Your task to perform on an android device: Open Wikipedia Image 0: 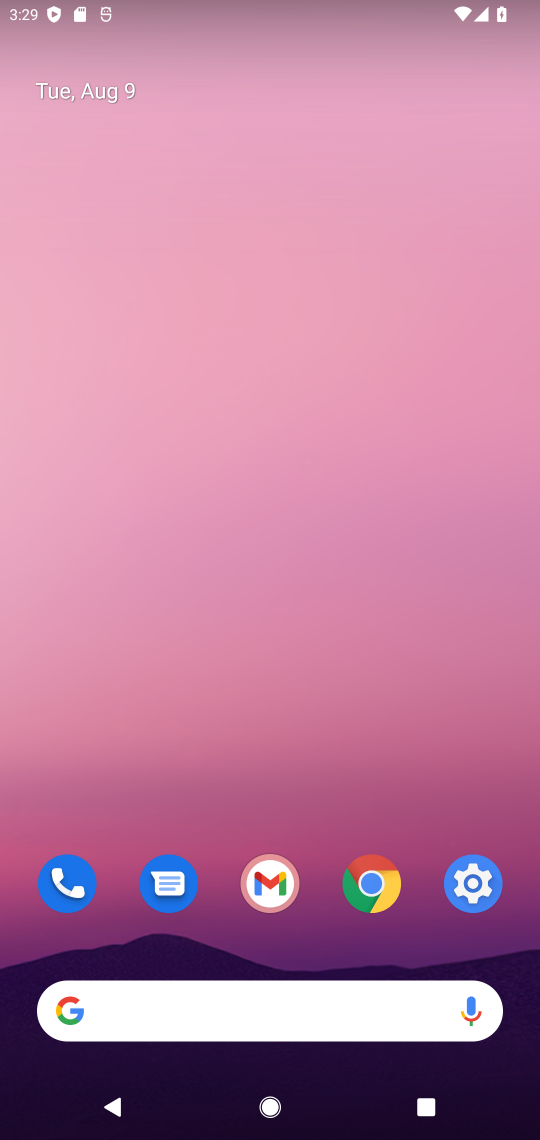
Step 0: drag from (381, 1041) to (353, 308)
Your task to perform on an android device: Open Wikipedia Image 1: 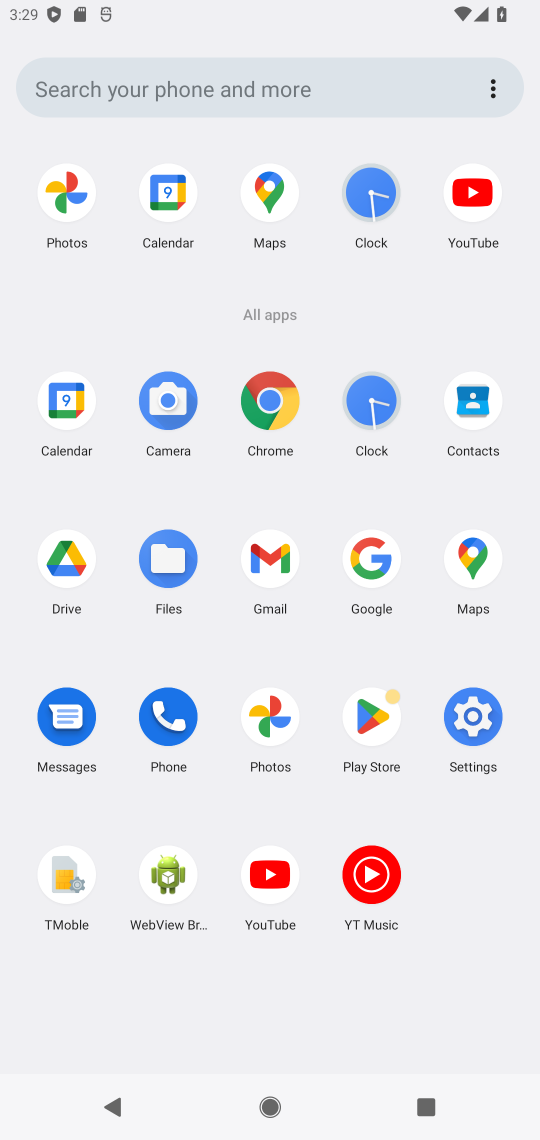
Step 1: click (275, 397)
Your task to perform on an android device: Open Wikipedia Image 2: 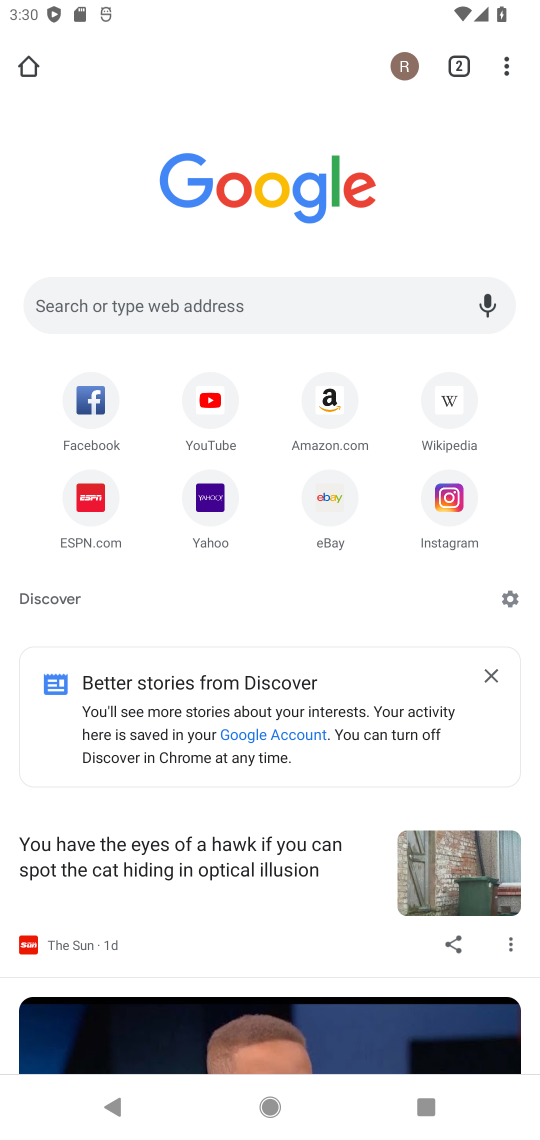
Step 2: click (434, 413)
Your task to perform on an android device: Open Wikipedia Image 3: 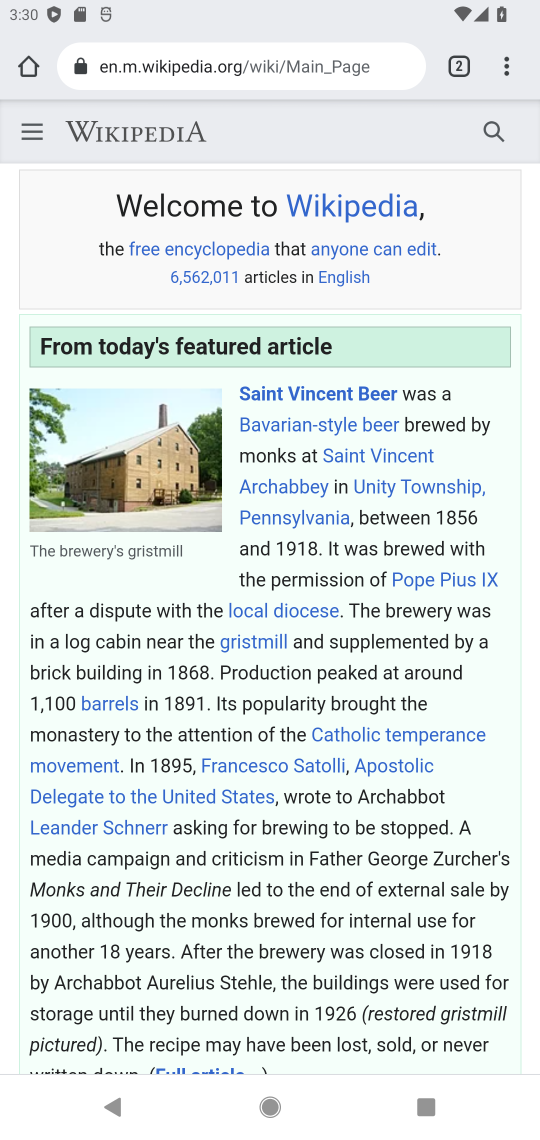
Step 3: click (511, 77)
Your task to perform on an android device: Open Wikipedia Image 4: 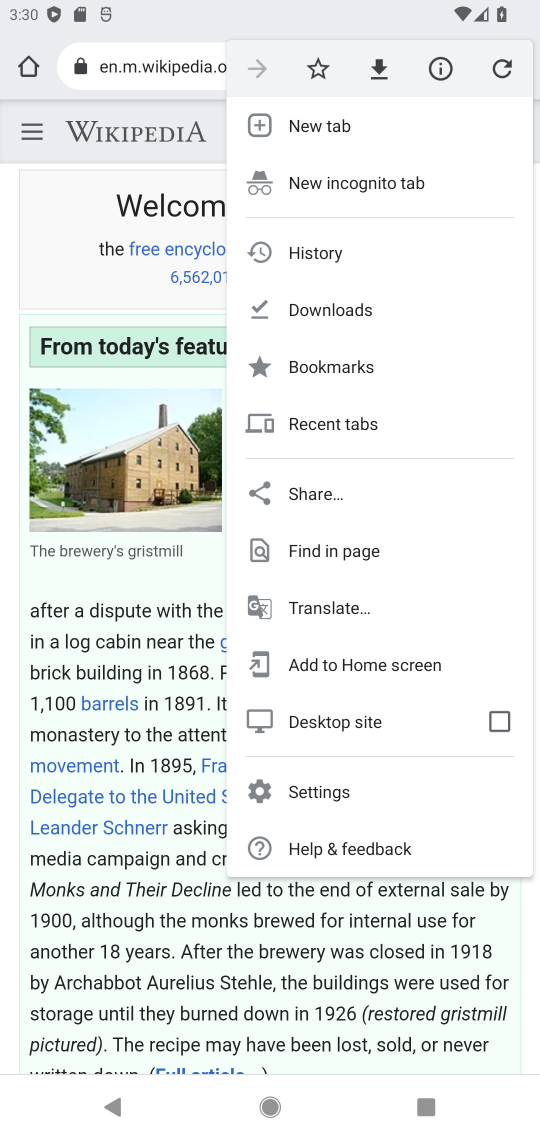
Step 4: click (162, 579)
Your task to perform on an android device: Open Wikipedia Image 5: 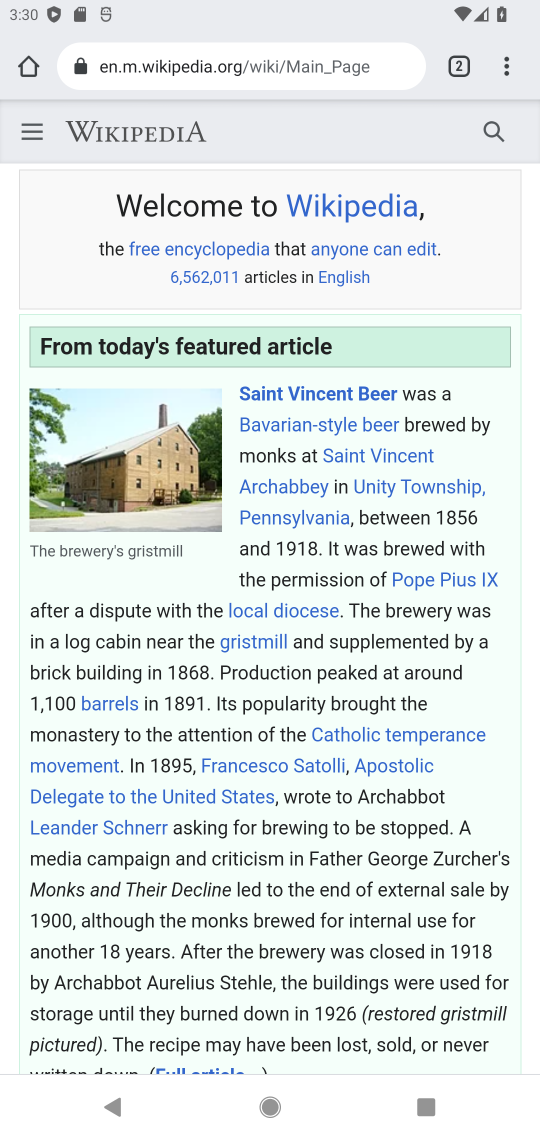
Step 5: task complete